Your task to perform on an android device: Open Yahoo.com Image 0: 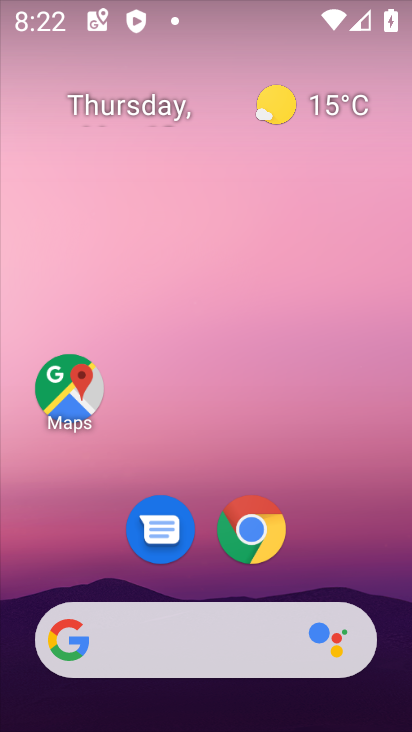
Step 0: click (233, 634)
Your task to perform on an android device: Open Yahoo.com Image 1: 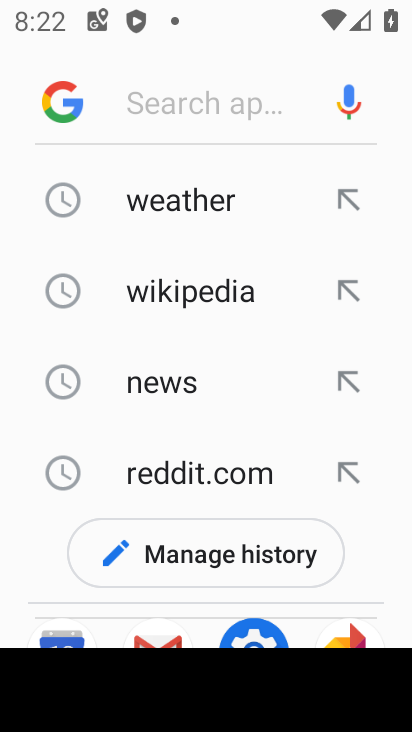
Step 1: type "yahoo.com"
Your task to perform on an android device: Open Yahoo.com Image 2: 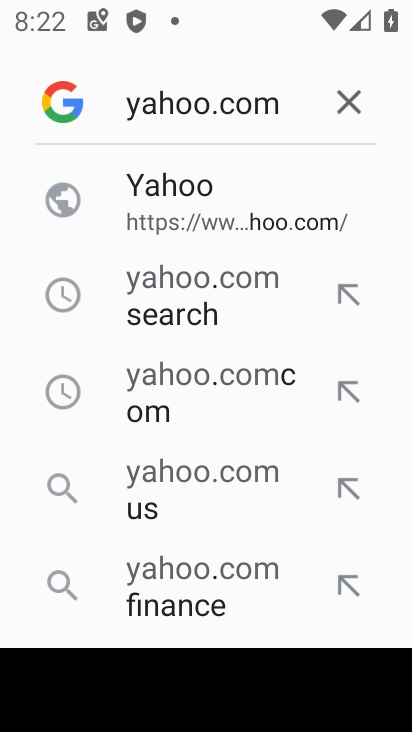
Step 2: click (310, 209)
Your task to perform on an android device: Open Yahoo.com Image 3: 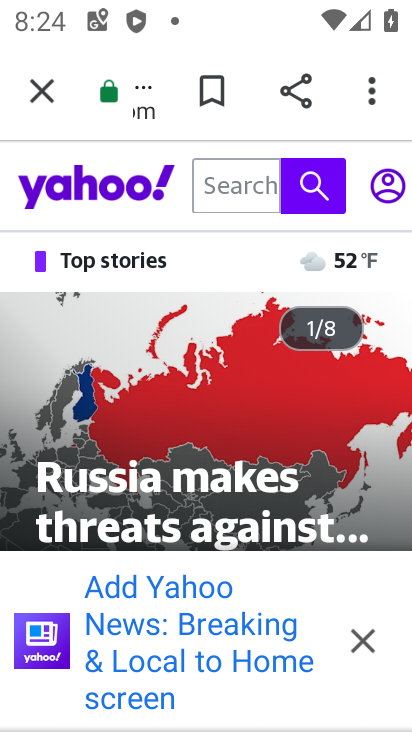
Step 3: task complete